Your task to perform on an android device: toggle wifi Image 0: 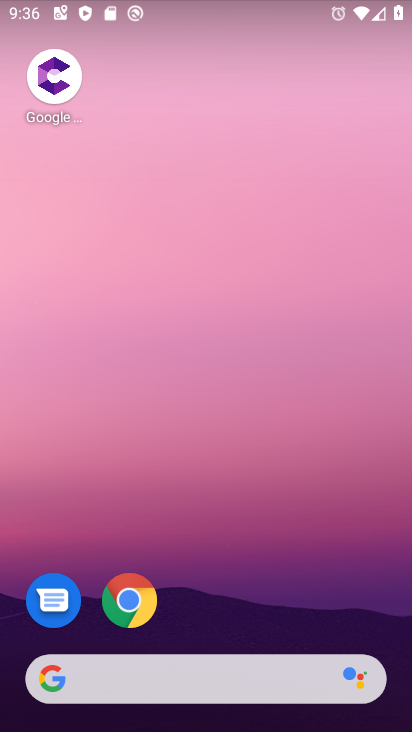
Step 0: drag from (227, 627) to (218, 59)
Your task to perform on an android device: toggle wifi Image 1: 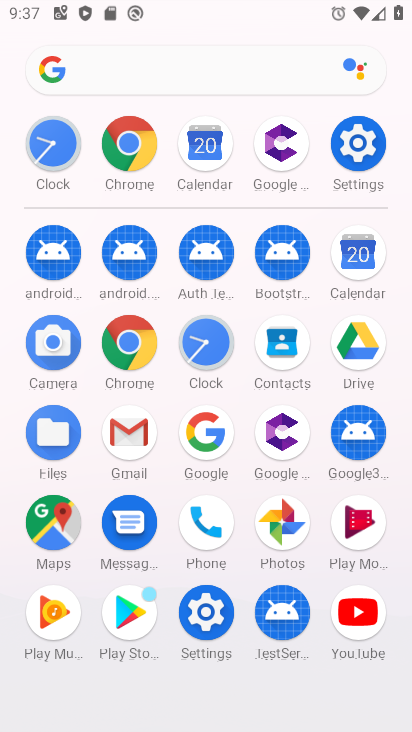
Step 1: click (202, 622)
Your task to perform on an android device: toggle wifi Image 2: 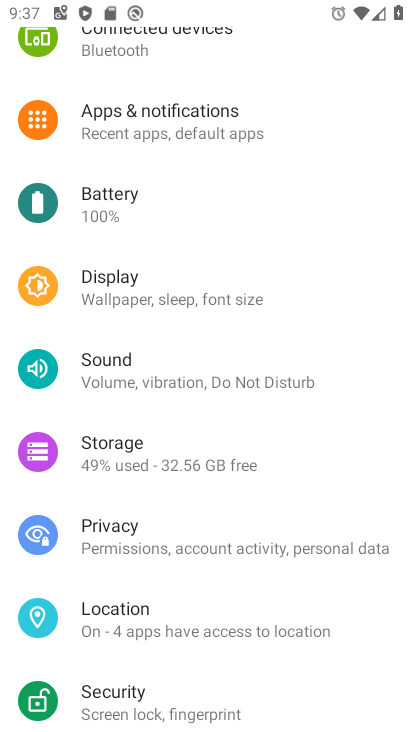
Step 2: drag from (281, 207) to (211, 604)
Your task to perform on an android device: toggle wifi Image 3: 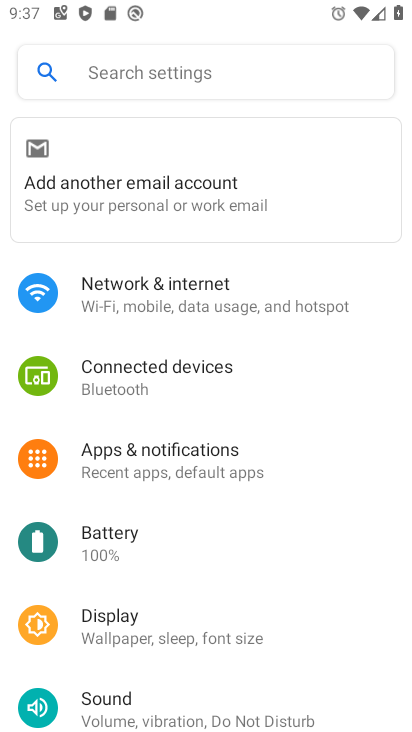
Step 3: click (147, 271)
Your task to perform on an android device: toggle wifi Image 4: 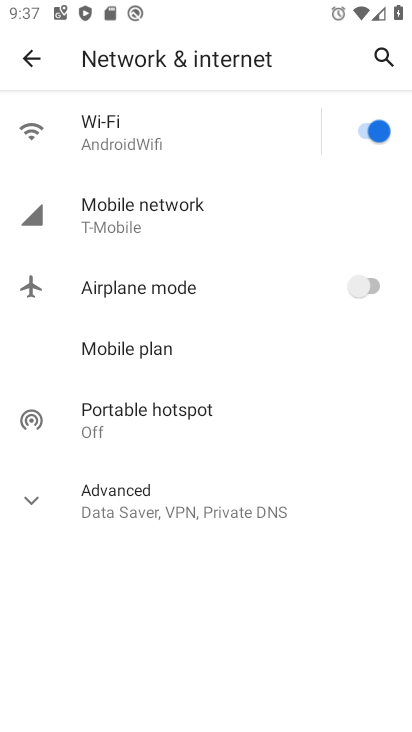
Step 4: click (373, 129)
Your task to perform on an android device: toggle wifi Image 5: 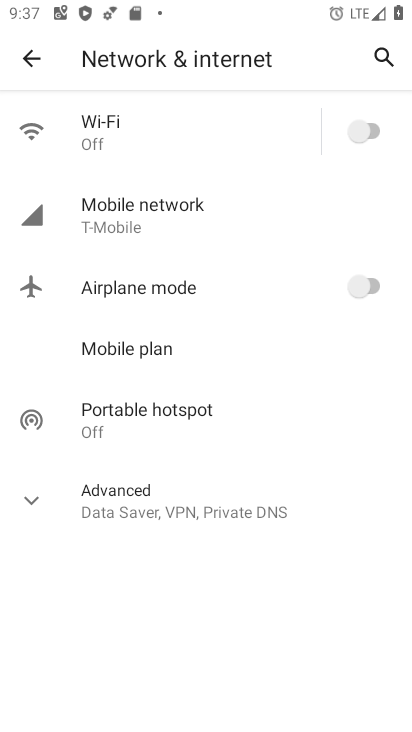
Step 5: task complete